Your task to perform on an android device: turn off location Image 0: 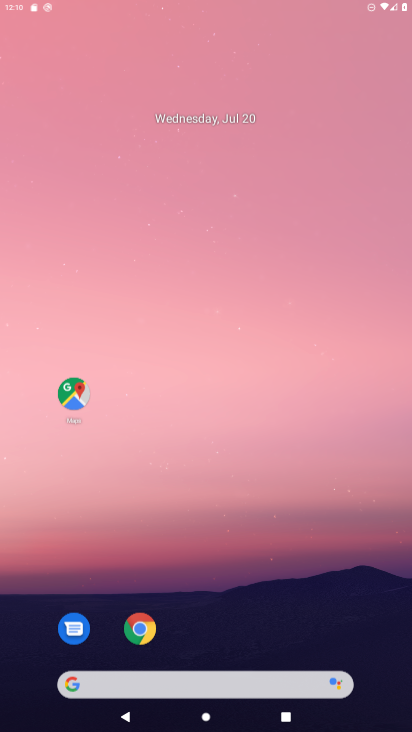
Step 0: click (72, 392)
Your task to perform on an android device: turn off location Image 1: 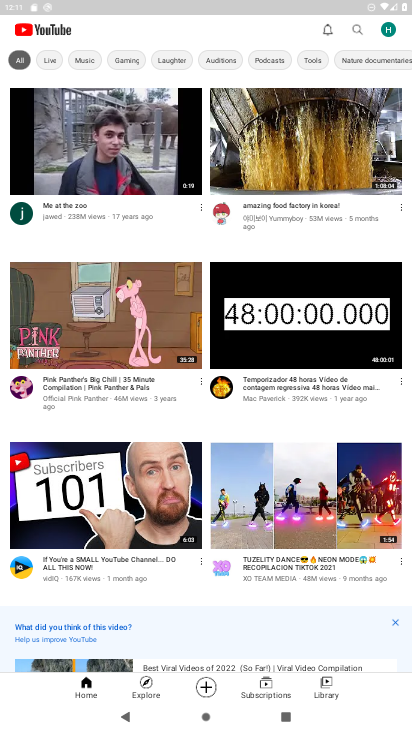
Step 1: press home button
Your task to perform on an android device: turn off location Image 2: 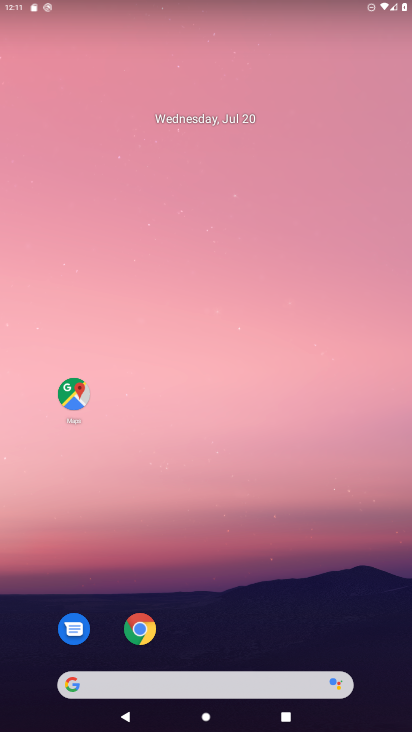
Step 2: drag from (198, 559) to (222, 135)
Your task to perform on an android device: turn off location Image 3: 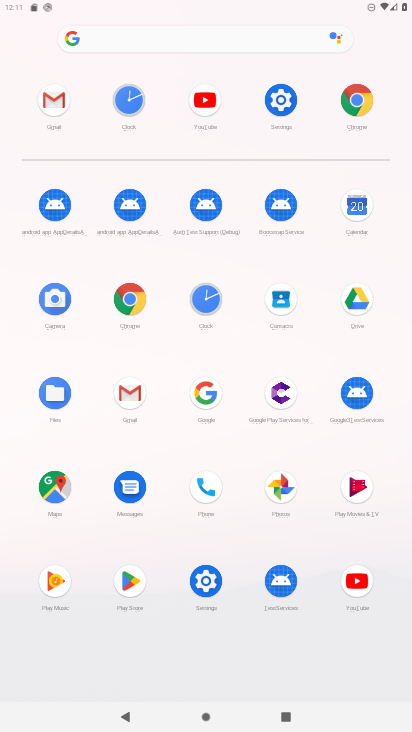
Step 3: click (279, 103)
Your task to perform on an android device: turn off location Image 4: 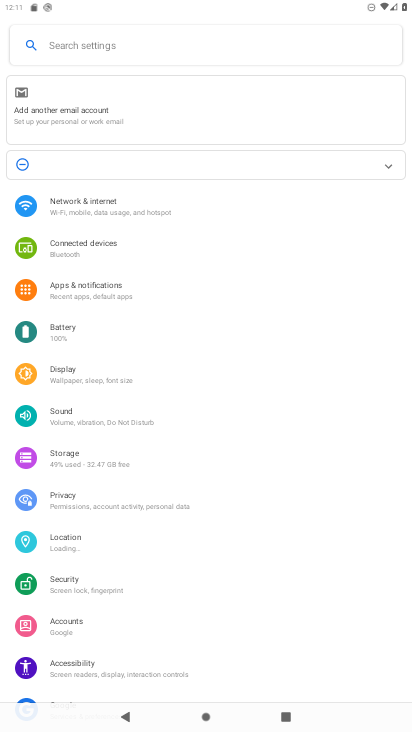
Step 4: click (69, 542)
Your task to perform on an android device: turn off location Image 5: 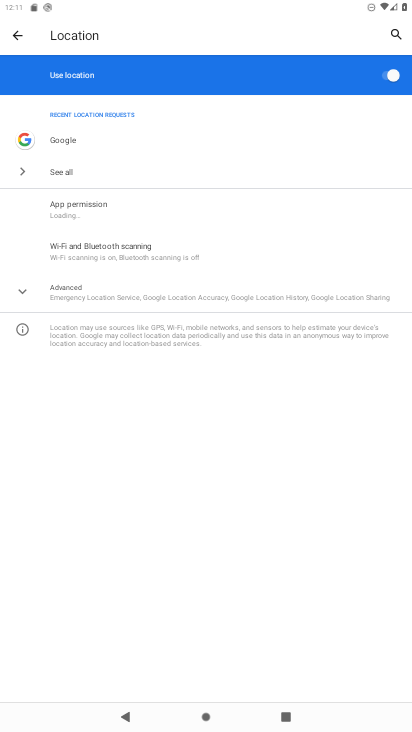
Step 5: click (383, 78)
Your task to perform on an android device: turn off location Image 6: 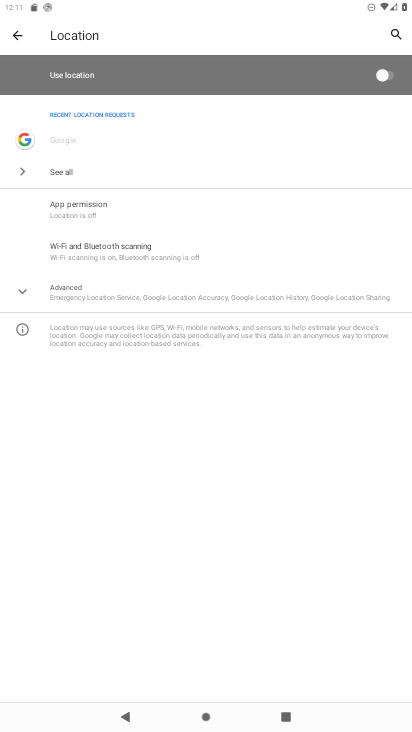
Step 6: task complete